Your task to perform on an android device: all mails in gmail Image 0: 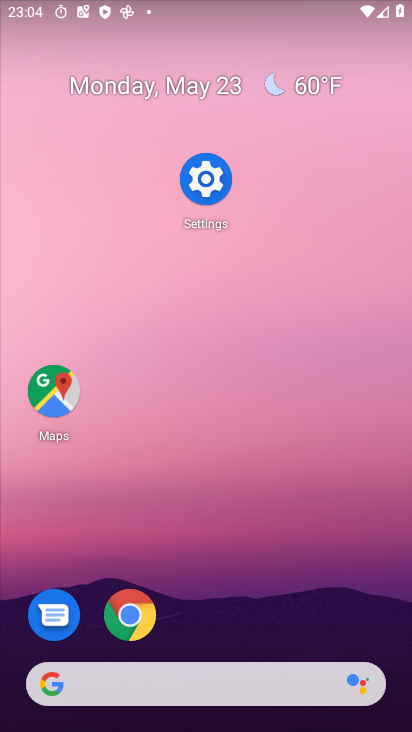
Step 0: drag from (274, 575) to (297, 85)
Your task to perform on an android device: all mails in gmail Image 1: 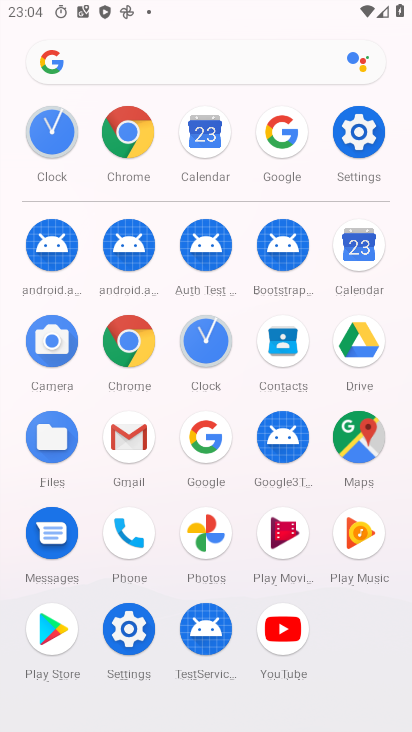
Step 1: click (139, 438)
Your task to perform on an android device: all mails in gmail Image 2: 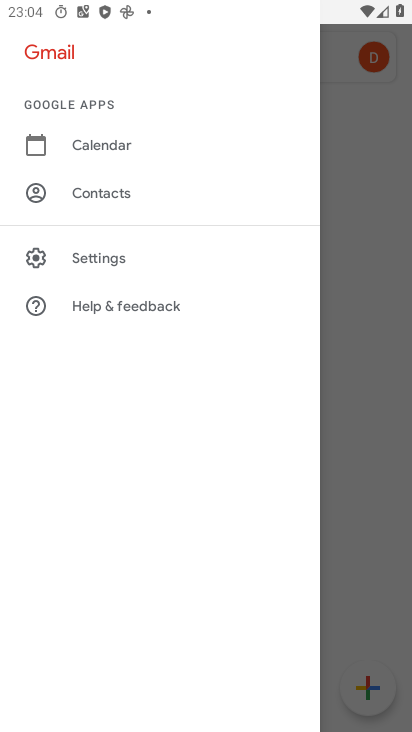
Step 2: click (359, 238)
Your task to perform on an android device: all mails in gmail Image 3: 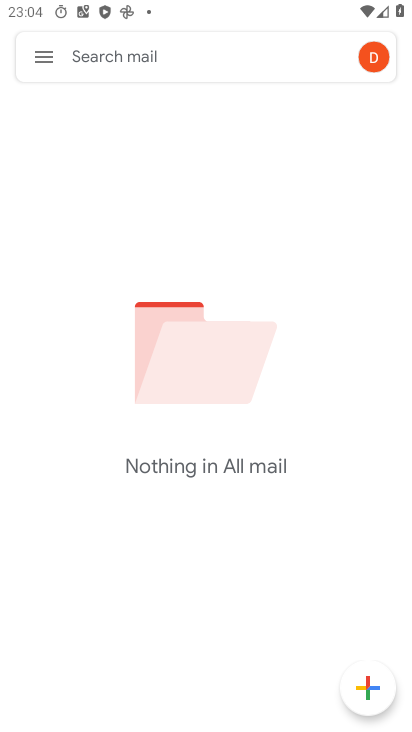
Step 3: click (34, 49)
Your task to perform on an android device: all mails in gmail Image 4: 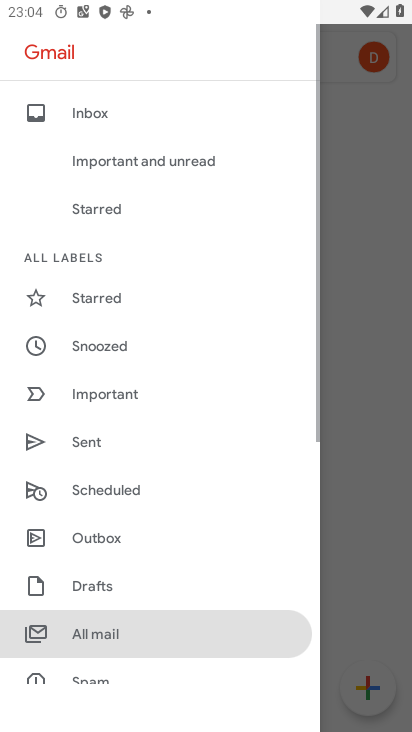
Step 4: click (124, 625)
Your task to perform on an android device: all mails in gmail Image 5: 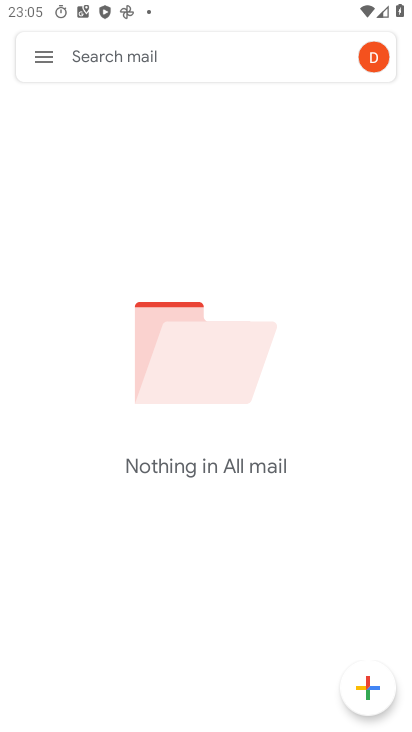
Step 5: task complete